Your task to perform on an android device: remove spam from my inbox in the gmail app Image 0: 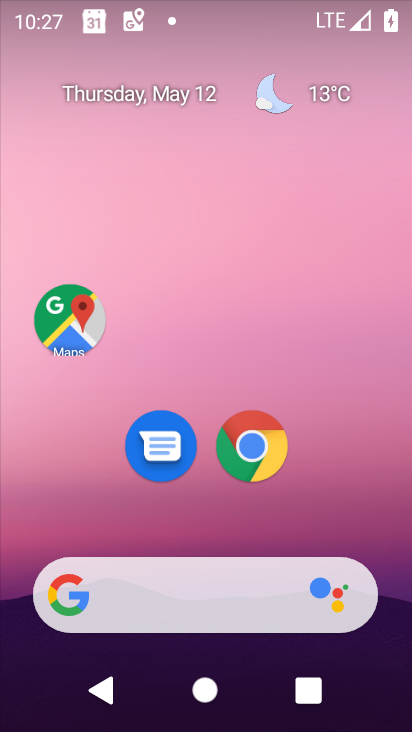
Step 0: drag from (229, 564) to (211, 13)
Your task to perform on an android device: remove spam from my inbox in the gmail app Image 1: 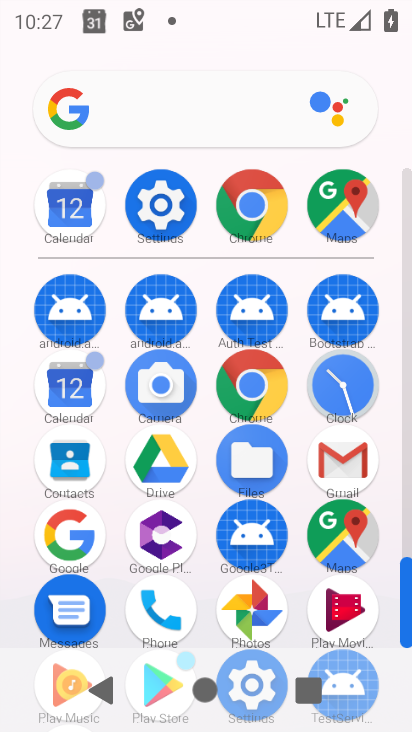
Step 1: click (328, 470)
Your task to perform on an android device: remove spam from my inbox in the gmail app Image 2: 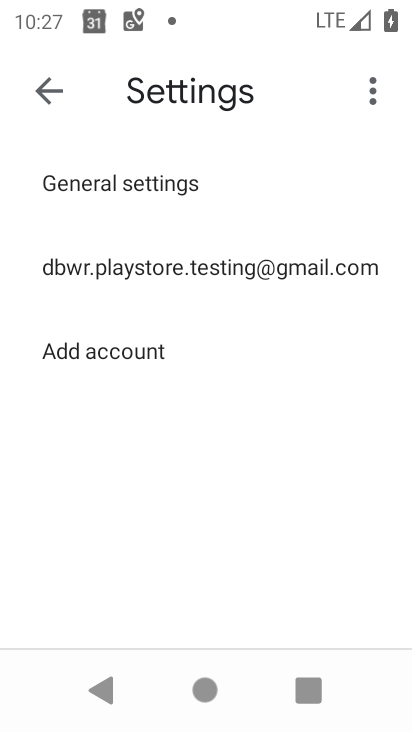
Step 2: press back button
Your task to perform on an android device: remove spam from my inbox in the gmail app Image 3: 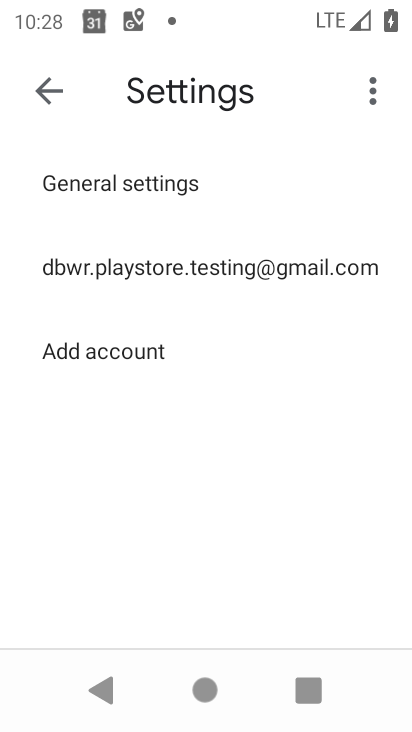
Step 3: press back button
Your task to perform on an android device: remove spam from my inbox in the gmail app Image 4: 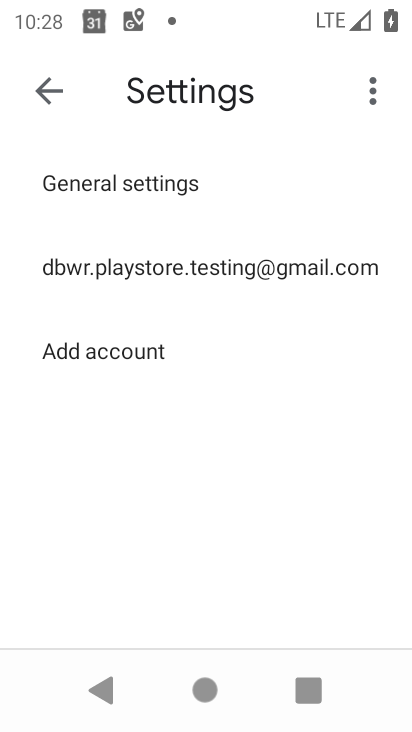
Step 4: press back button
Your task to perform on an android device: remove spam from my inbox in the gmail app Image 5: 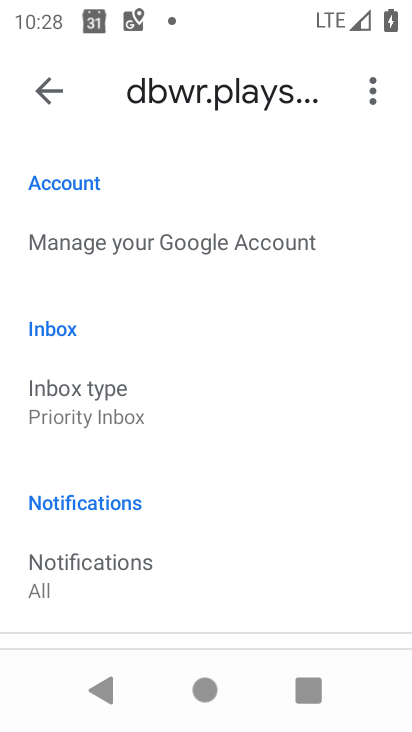
Step 5: press back button
Your task to perform on an android device: remove spam from my inbox in the gmail app Image 6: 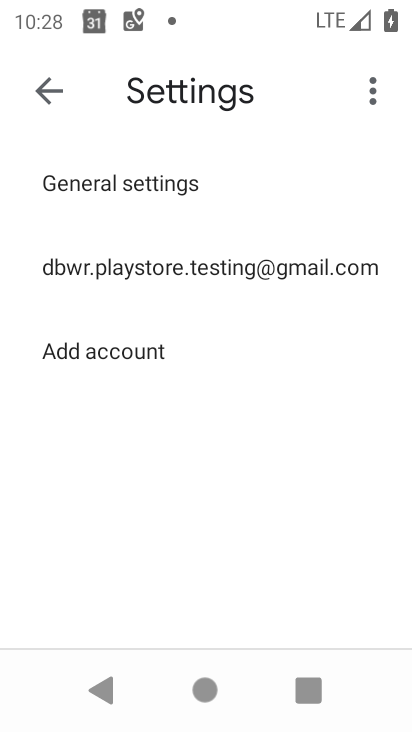
Step 6: press back button
Your task to perform on an android device: remove spam from my inbox in the gmail app Image 7: 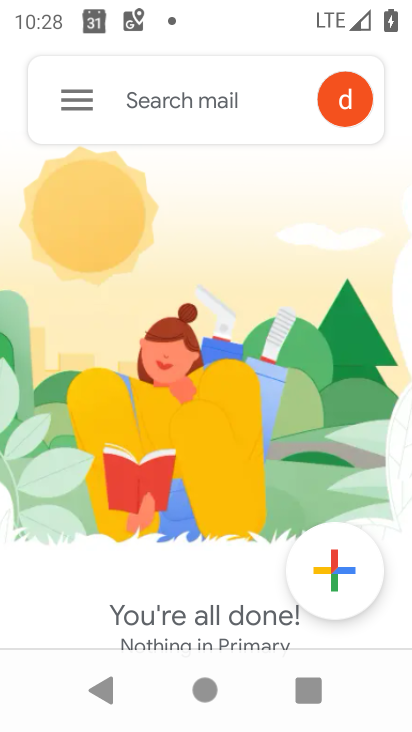
Step 7: click (87, 102)
Your task to perform on an android device: remove spam from my inbox in the gmail app Image 8: 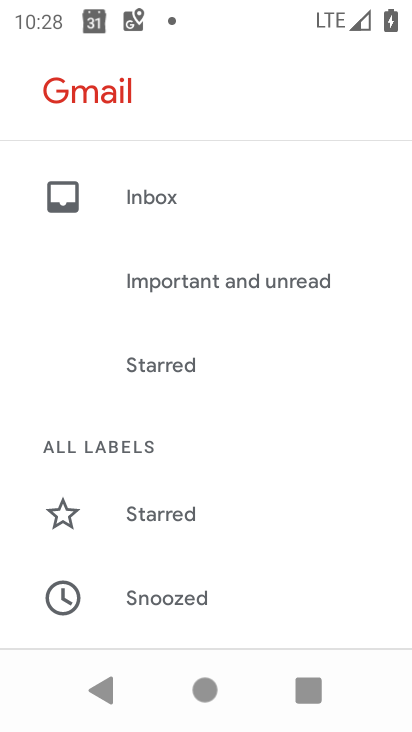
Step 8: drag from (105, 616) to (155, 118)
Your task to perform on an android device: remove spam from my inbox in the gmail app Image 9: 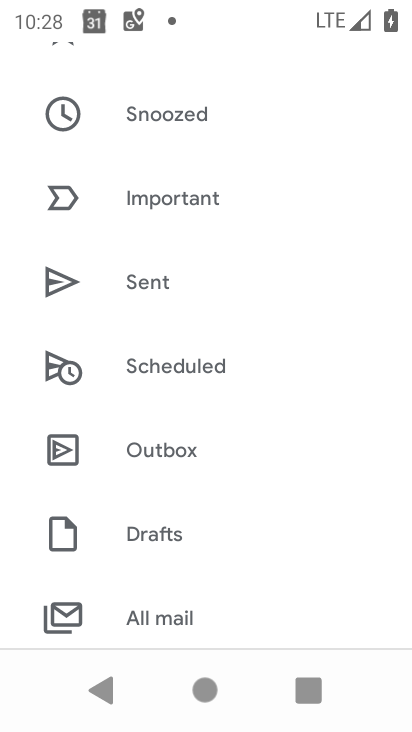
Step 9: drag from (123, 601) to (193, 84)
Your task to perform on an android device: remove spam from my inbox in the gmail app Image 10: 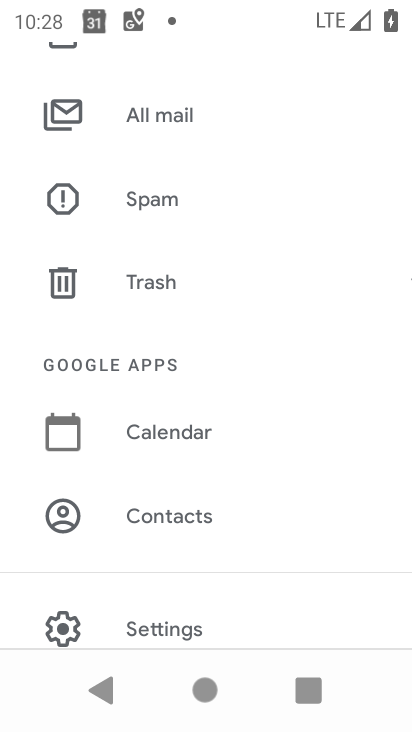
Step 10: click (121, 204)
Your task to perform on an android device: remove spam from my inbox in the gmail app Image 11: 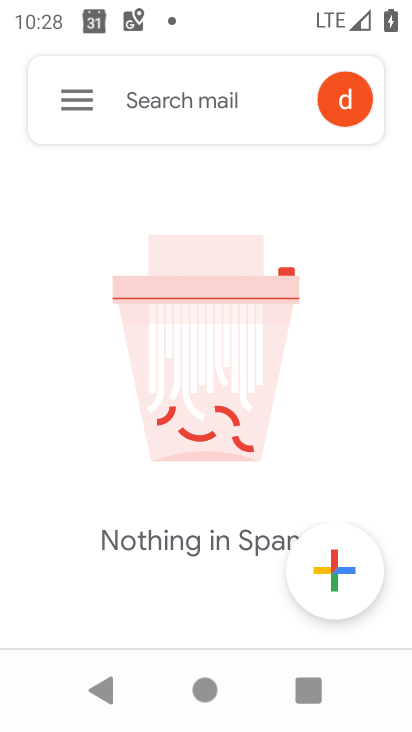
Step 11: task complete